Your task to perform on an android device: find snoozed emails in the gmail app Image 0: 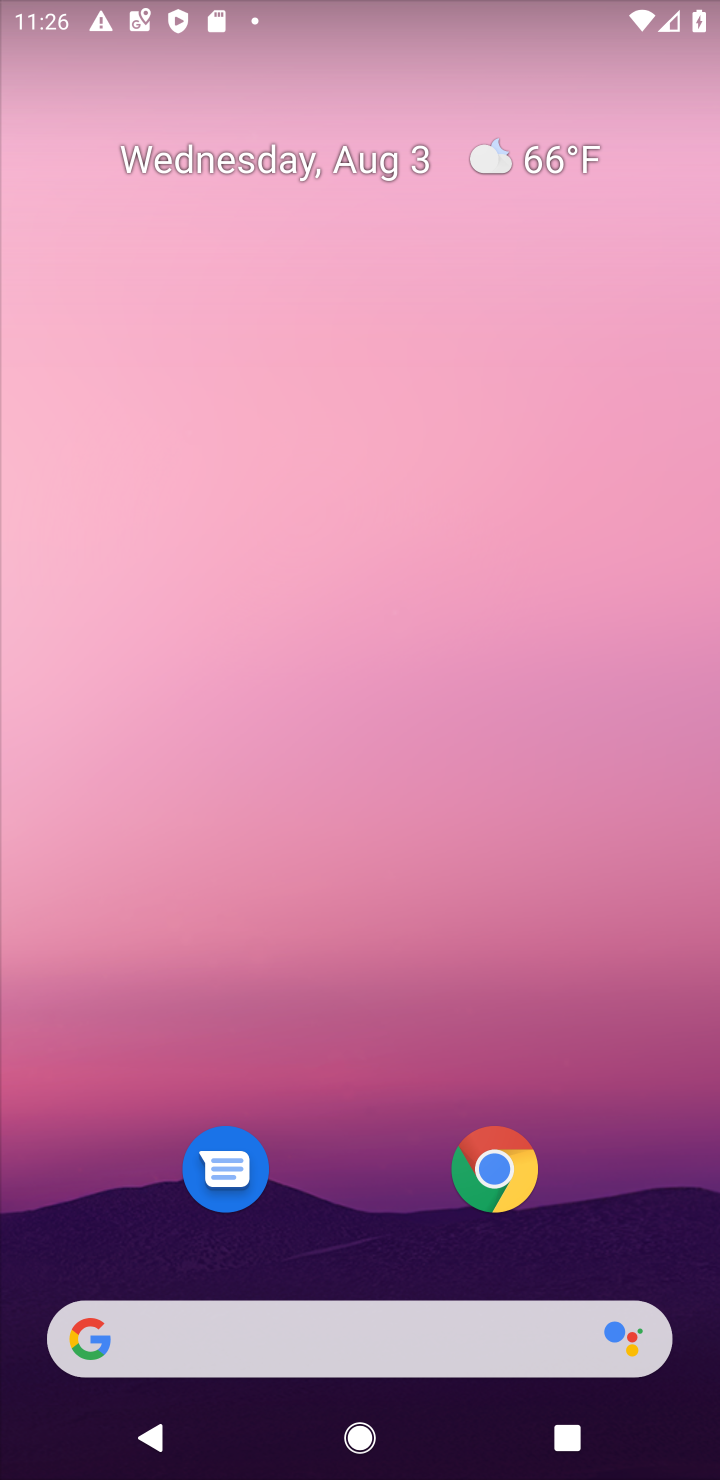
Step 0: drag from (403, 1243) to (347, 2)
Your task to perform on an android device: find snoozed emails in the gmail app Image 1: 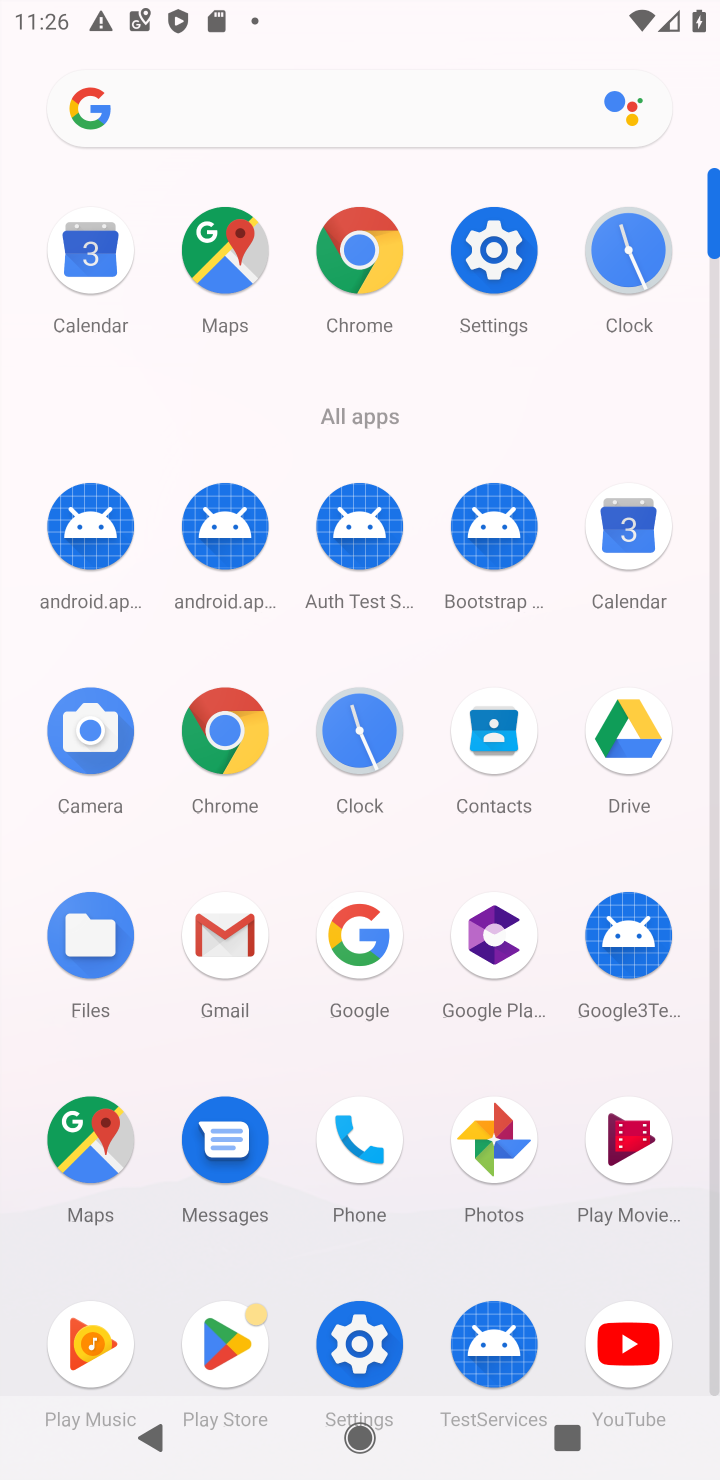
Step 1: click (214, 924)
Your task to perform on an android device: find snoozed emails in the gmail app Image 2: 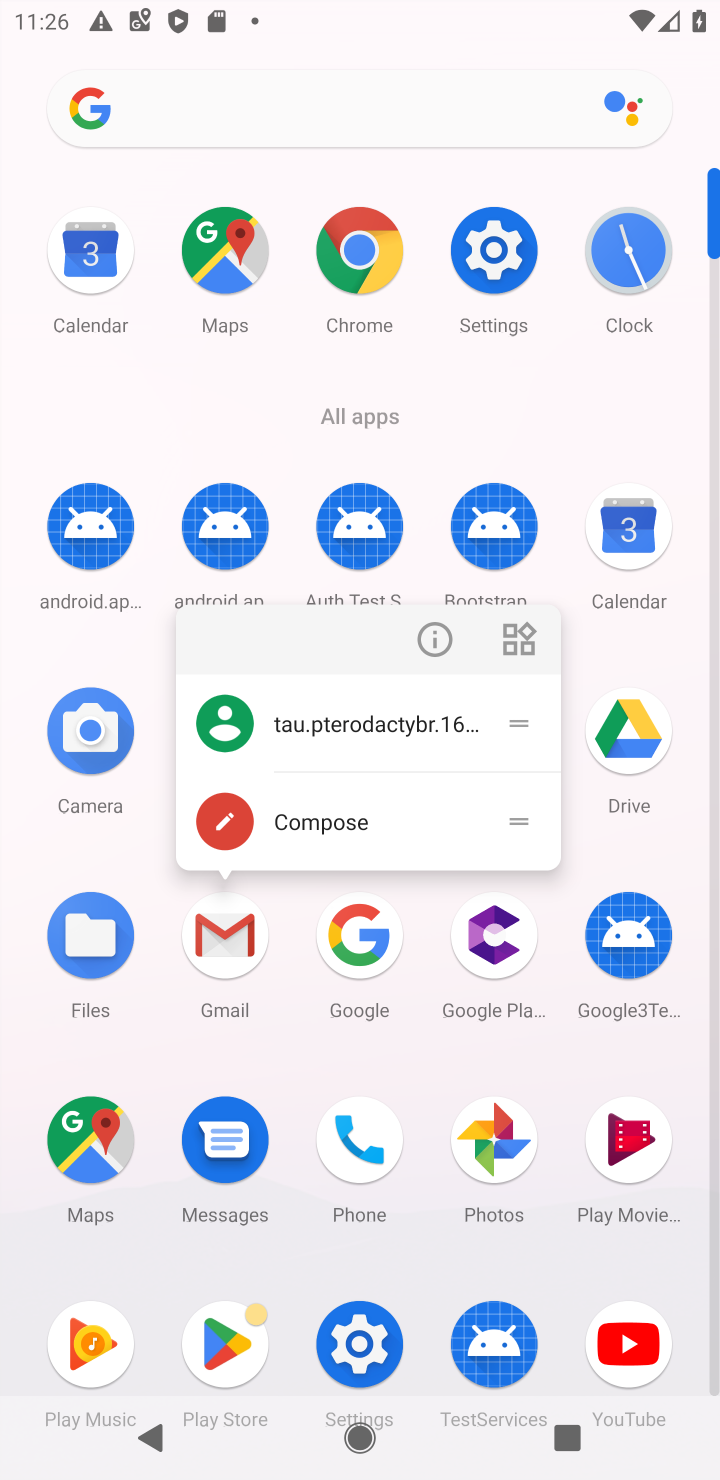
Step 2: click (222, 947)
Your task to perform on an android device: find snoozed emails in the gmail app Image 3: 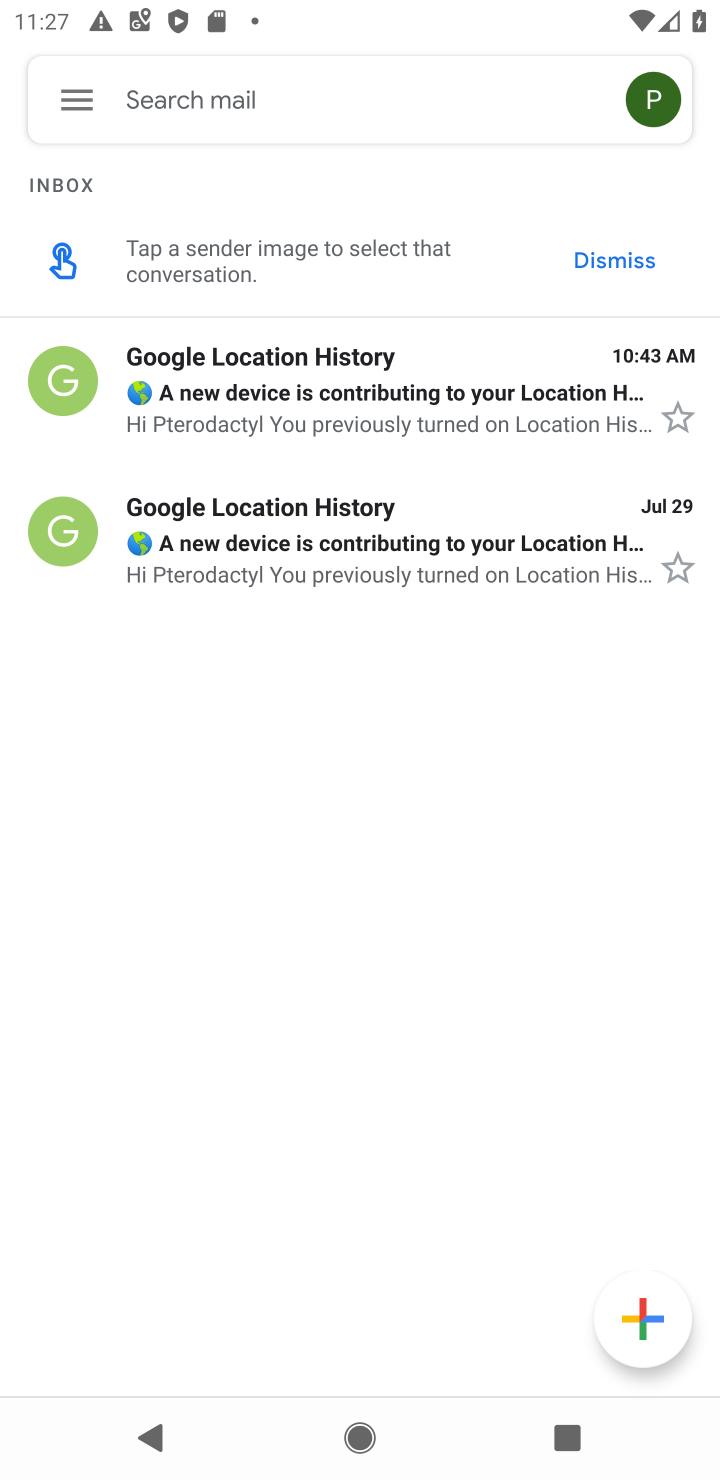
Step 3: click (61, 106)
Your task to perform on an android device: find snoozed emails in the gmail app Image 4: 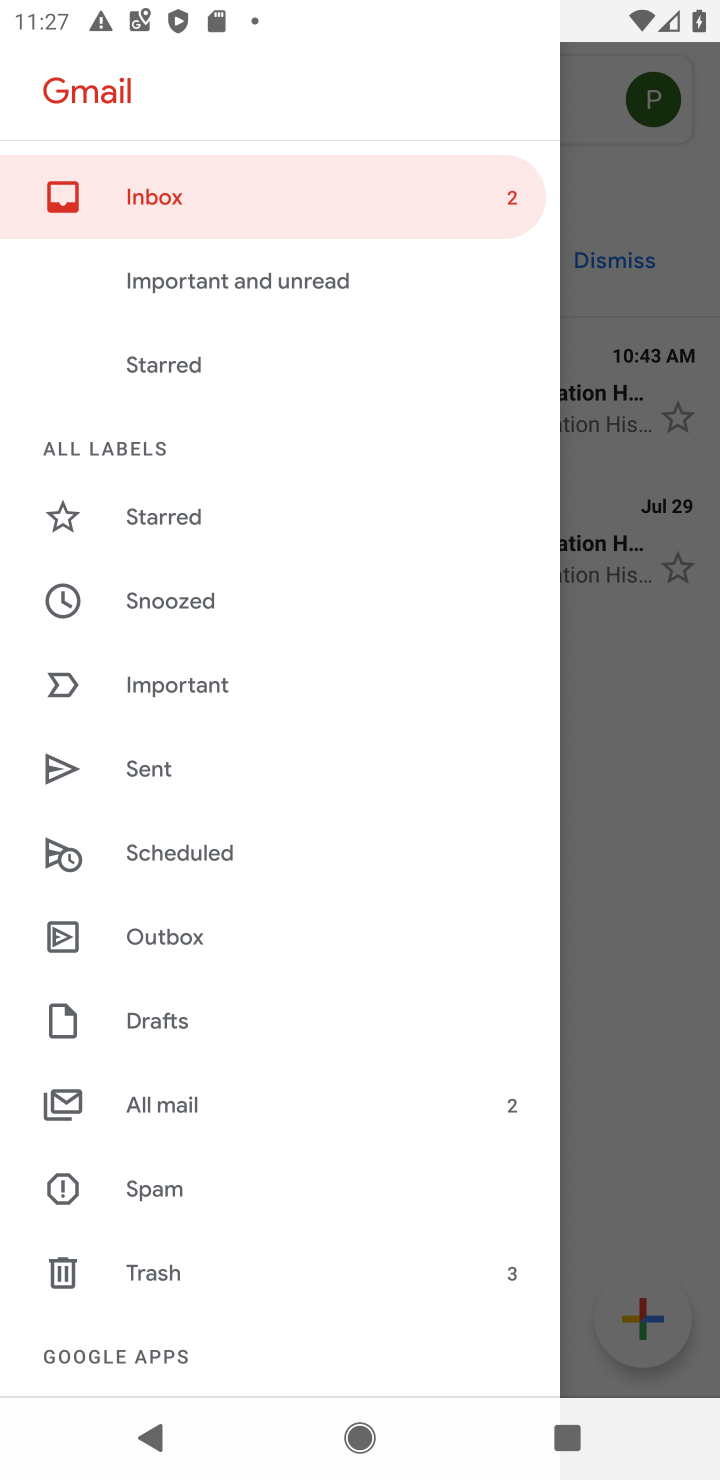
Step 4: click (148, 600)
Your task to perform on an android device: find snoozed emails in the gmail app Image 5: 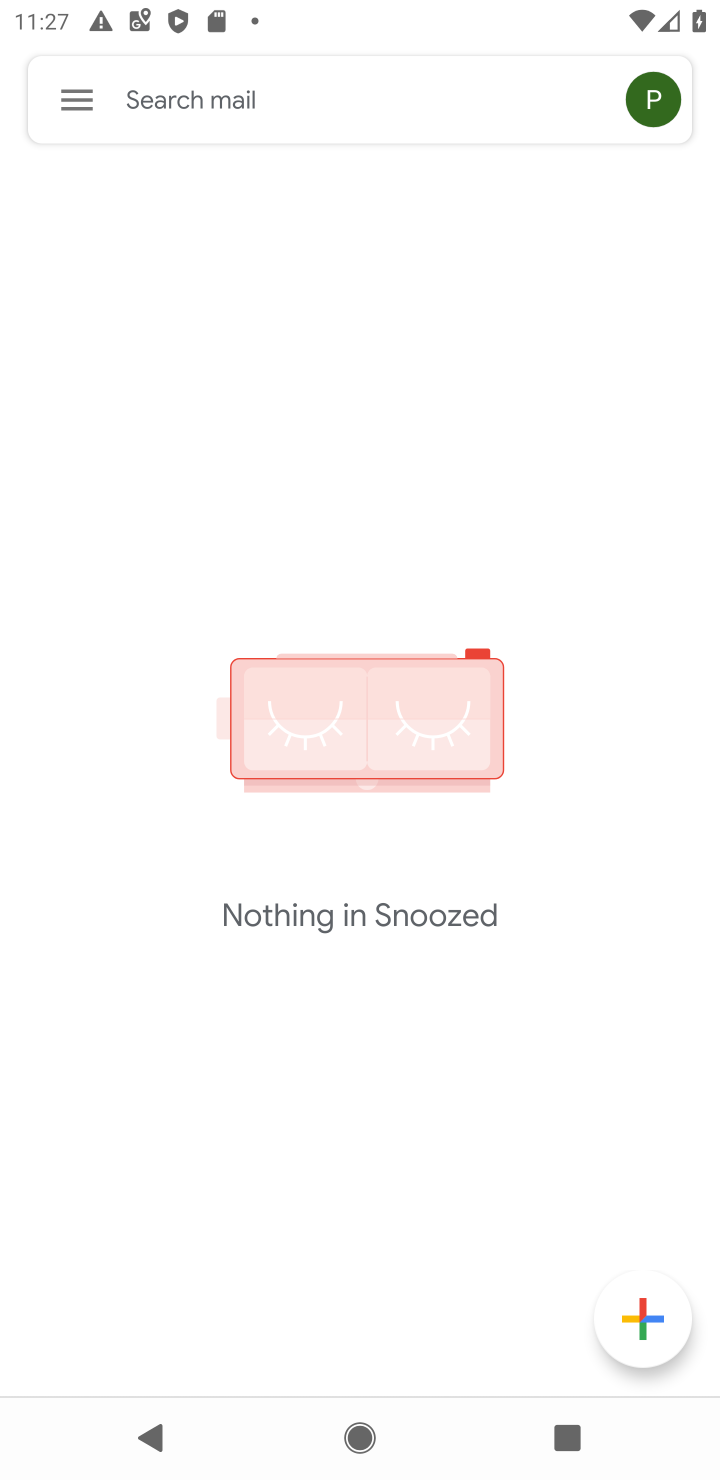
Step 5: task complete